Your task to perform on an android device: Look up the best rated coffee table on Ikea Image 0: 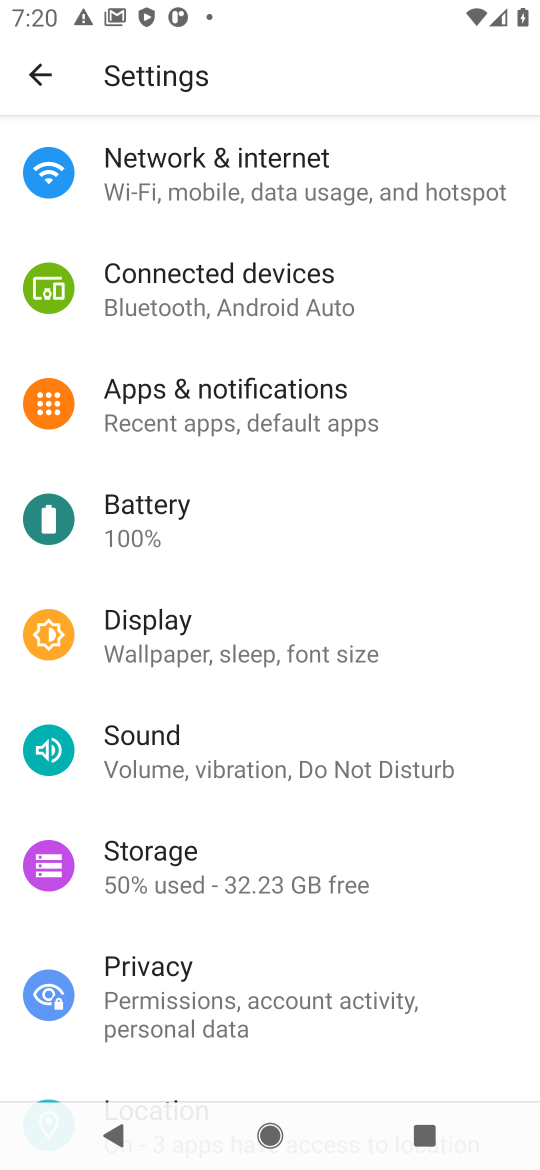
Step 0: press home button
Your task to perform on an android device: Look up the best rated coffee table on Ikea Image 1: 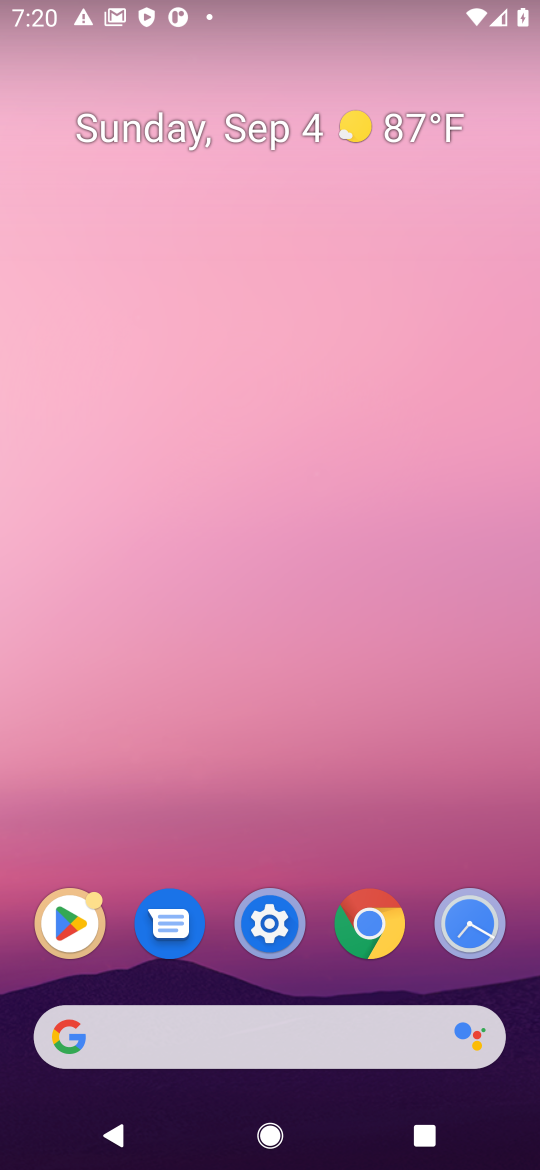
Step 1: click (335, 1035)
Your task to perform on an android device: Look up the best rated coffee table on Ikea Image 2: 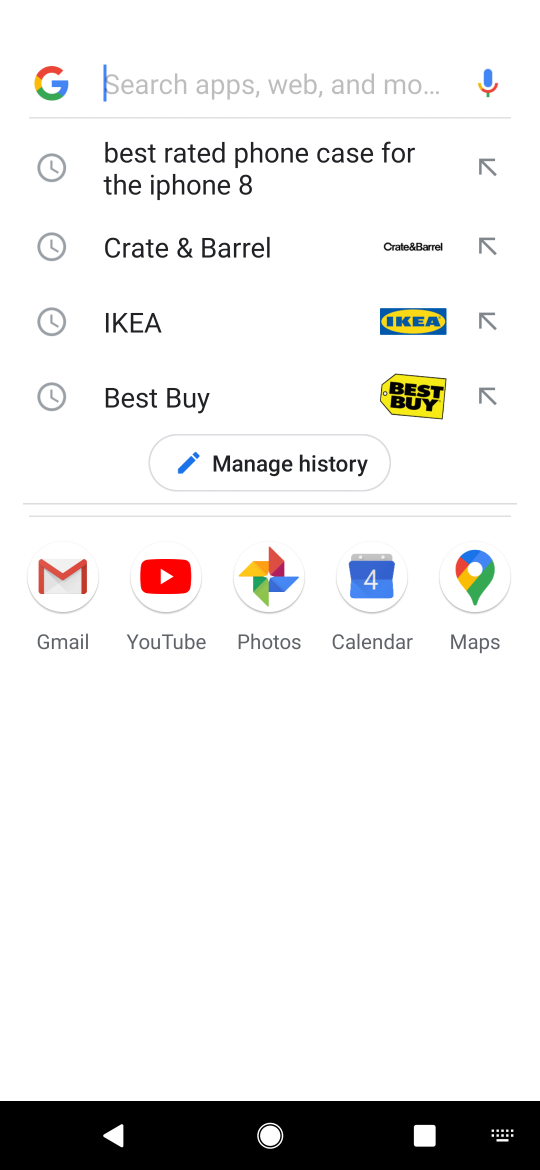
Step 2: press enter
Your task to perform on an android device: Look up the best rated coffee table on Ikea Image 3: 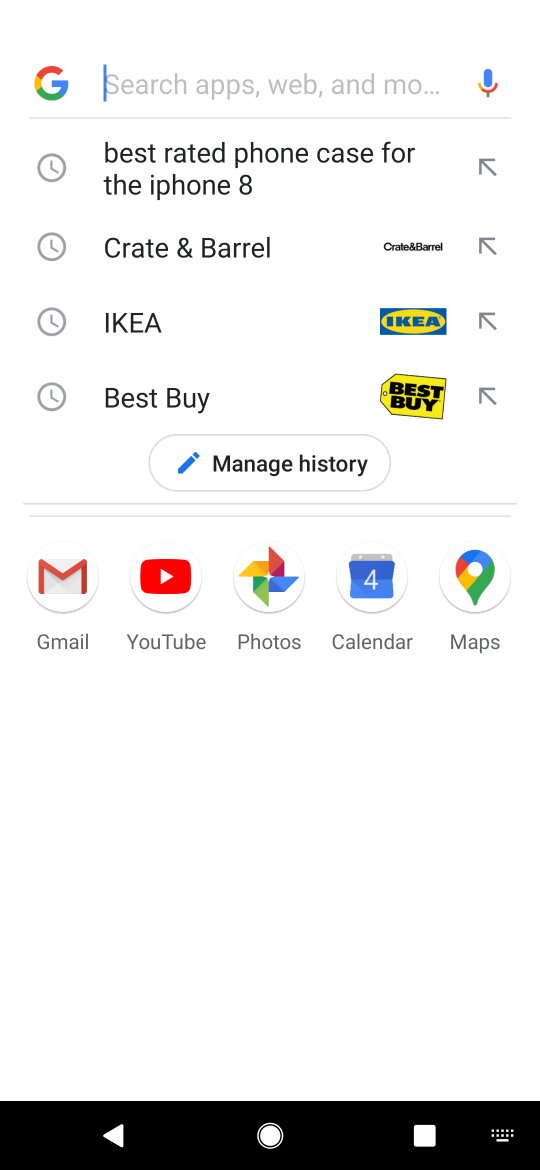
Step 3: type "ikea"
Your task to perform on an android device: Look up the best rated coffee table on Ikea Image 4: 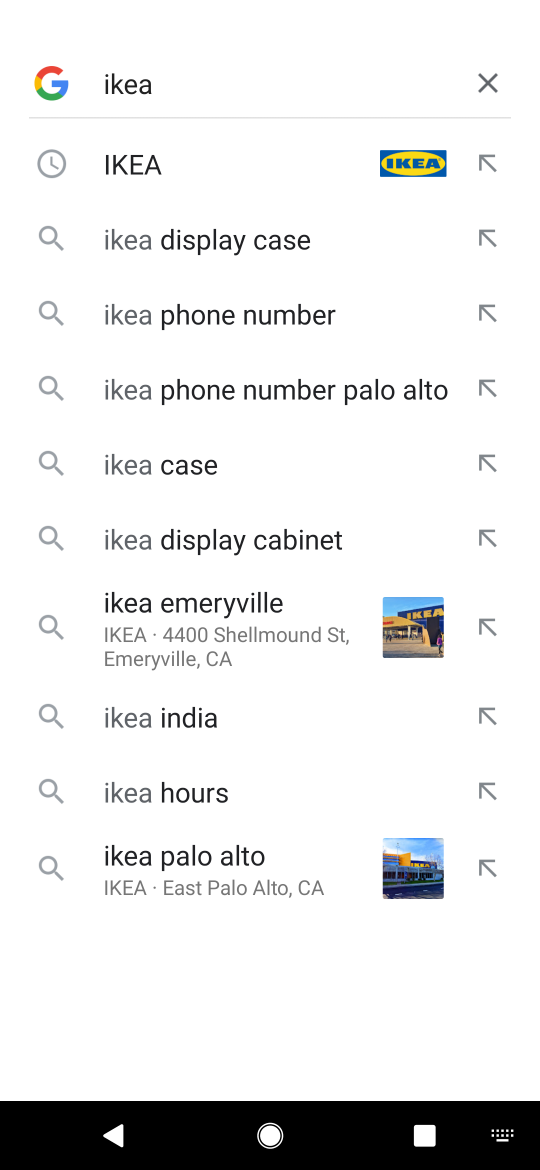
Step 4: click (139, 170)
Your task to perform on an android device: Look up the best rated coffee table on Ikea Image 5: 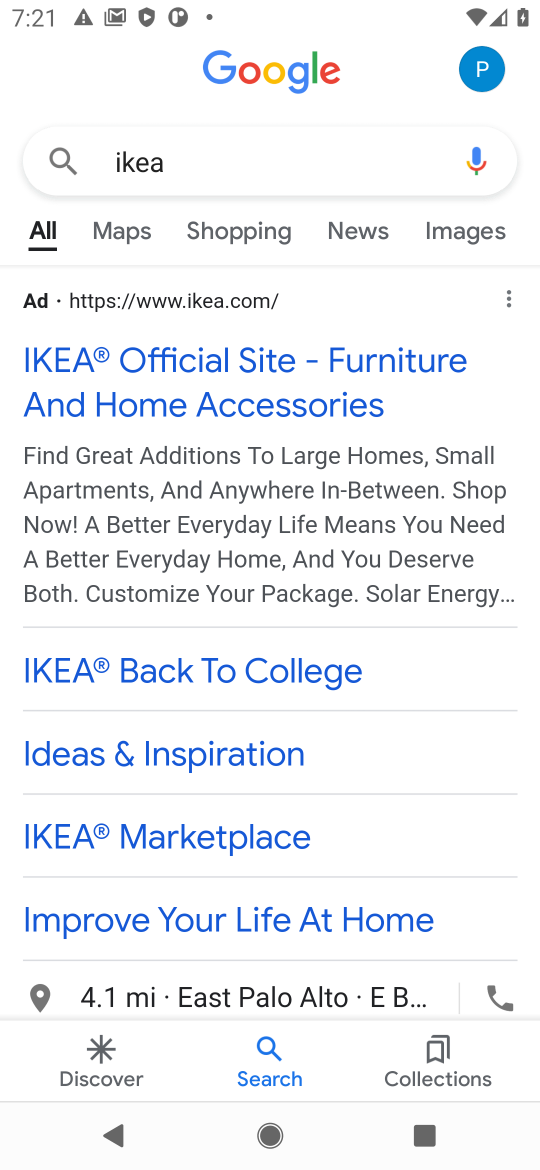
Step 5: click (251, 371)
Your task to perform on an android device: Look up the best rated coffee table on Ikea Image 6: 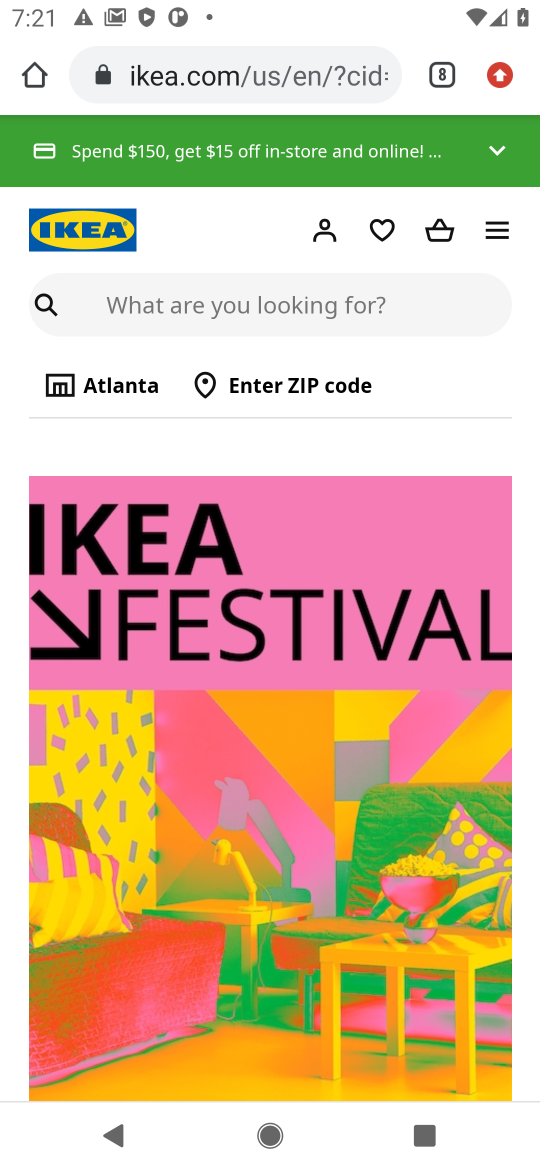
Step 6: click (318, 297)
Your task to perform on an android device: Look up the best rated coffee table on Ikea Image 7: 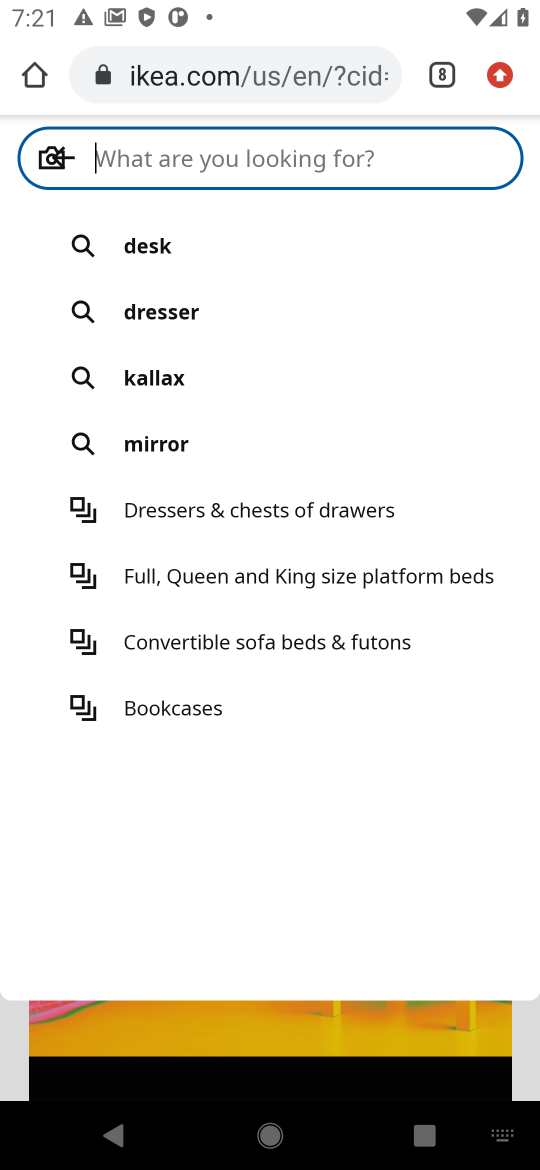
Step 7: press enter
Your task to perform on an android device: Look up the best rated coffee table on Ikea Image 8: 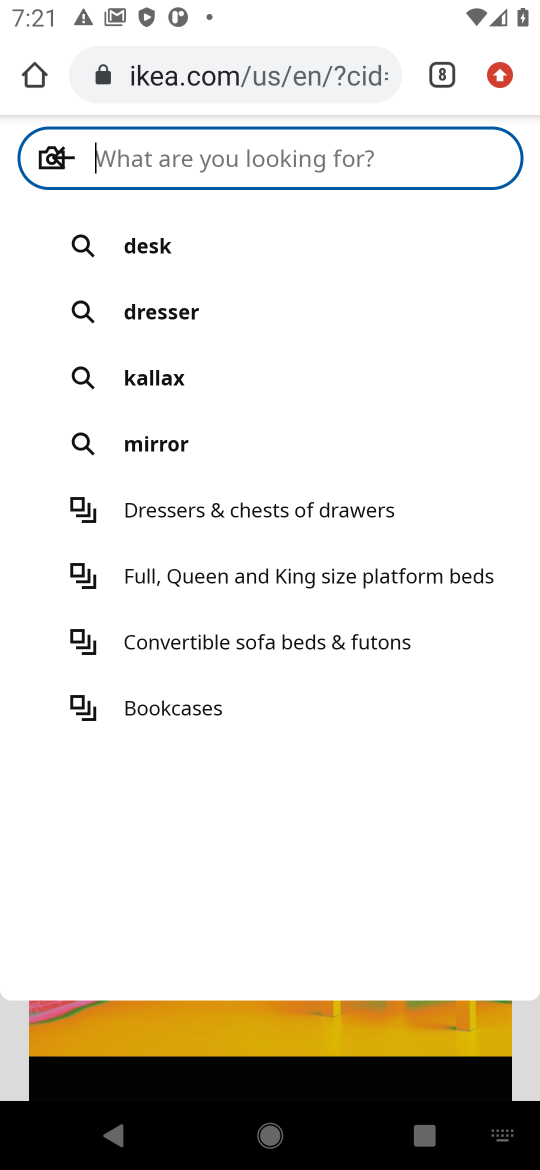
Step 8: type "coffee table"
Your task to perform on an android device: Look up the best rated coffee table on Ikea Image 9: 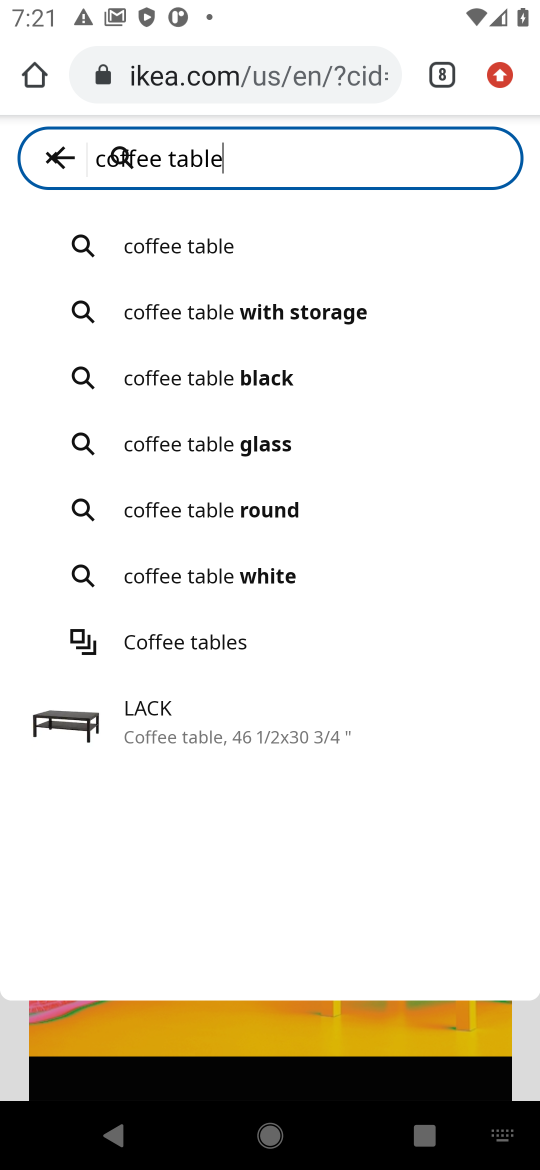
Step 9: click (222, 250)
Your task to perform on an android device: Look up the best rated coffee table on Ikea Image 10: 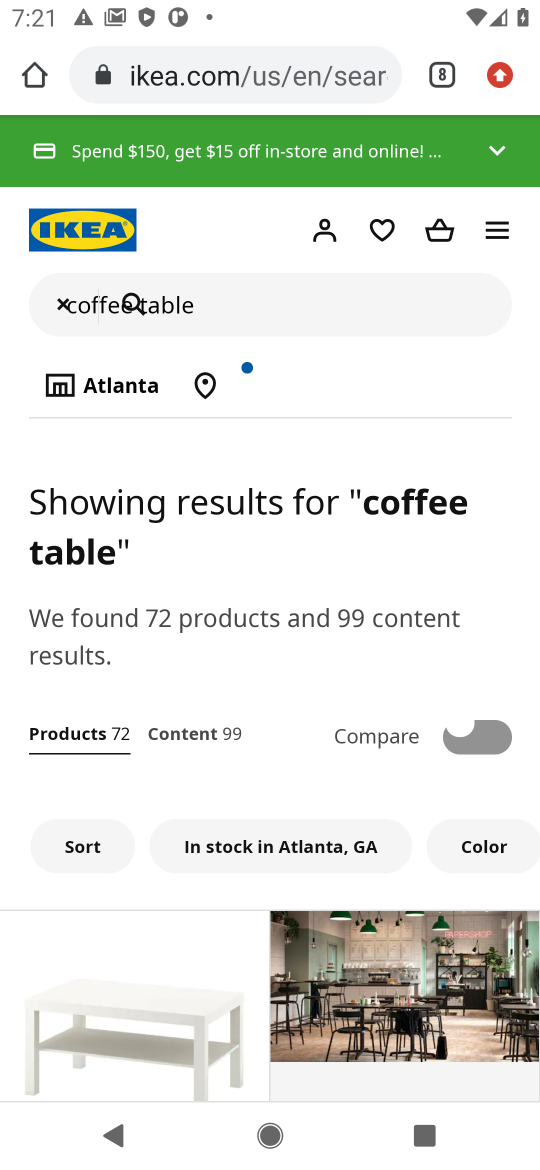
Step 10: task complete